Your task to perform on an android device: Go to privacy settings Image 0: 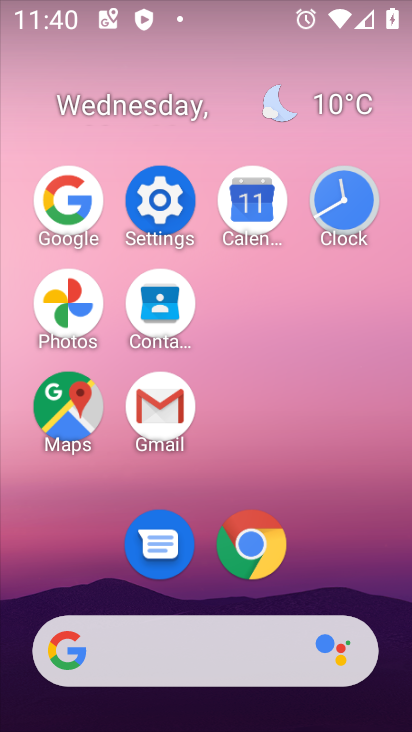
Step 0: click (175, 198)
Your task to perform on an android device: Go to privacy settings Image 1: 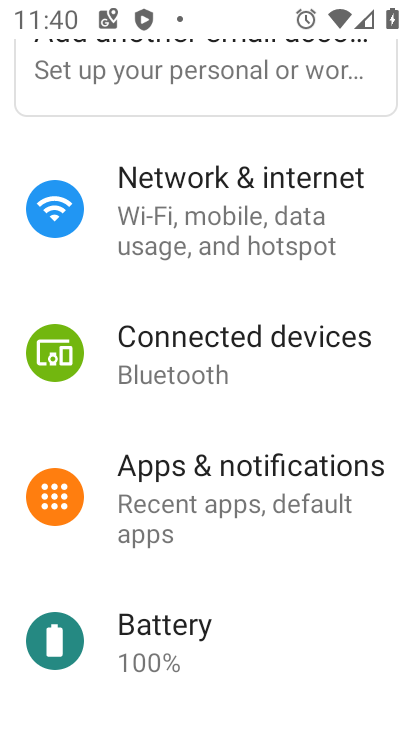
Step 1: drag from (285, 609) to (294, 180)
Your task to perform on an android device: Go to privacy settings Image 2: 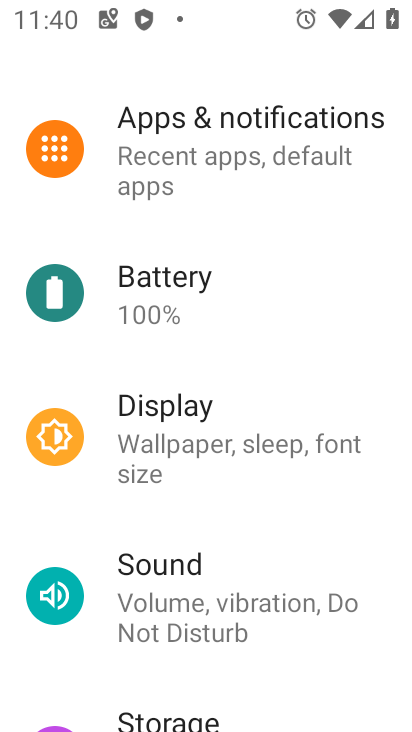
Step 2: drag from (297, 541) to (269, 154)
Your task to perform on an android device: Go to privacy settings Image 3: 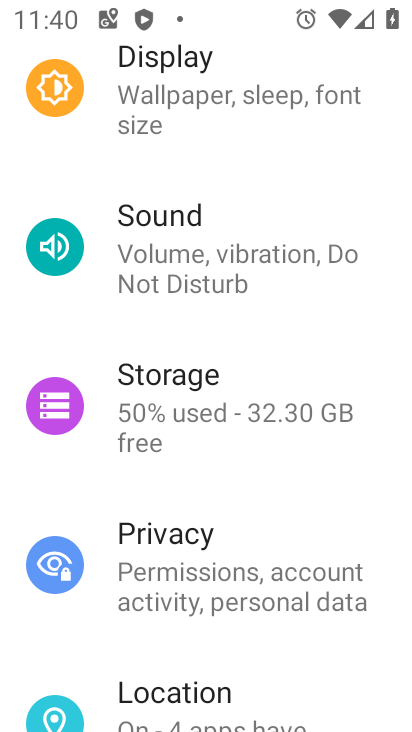
Step 3: drag from (274, 541) to (267, 224)
Your task to perform on an android device: Go to privacy settings Image 4: 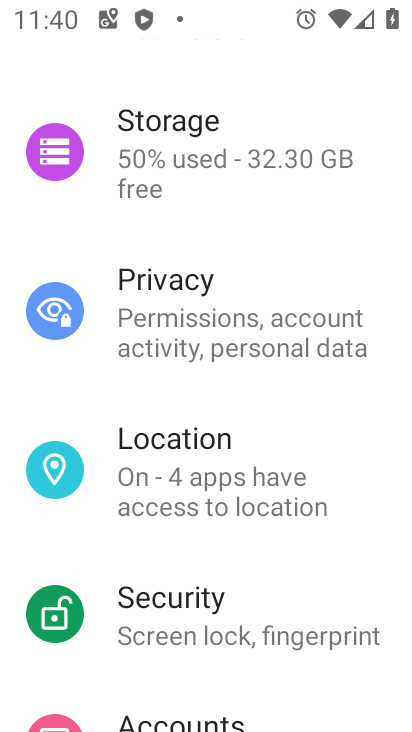
Step 4: click (254, 315)
Your task to perform on an android device: Go to privacy settings Image 5: 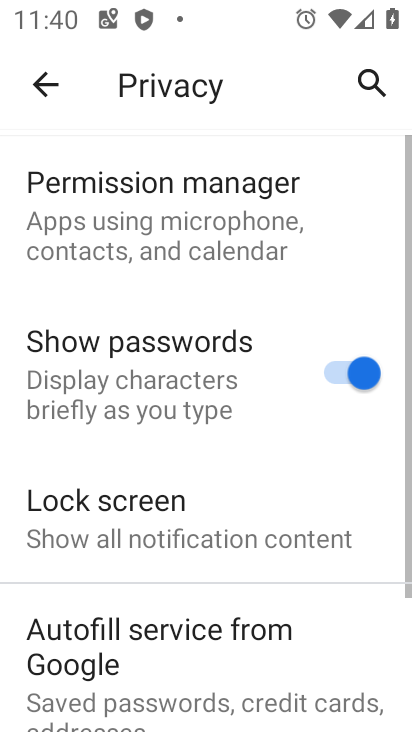
Step 5: task complete